Your task to perform on an android device: Search for "bose soundlink" on target, select the first entry, and add it to the cart. Image 0: 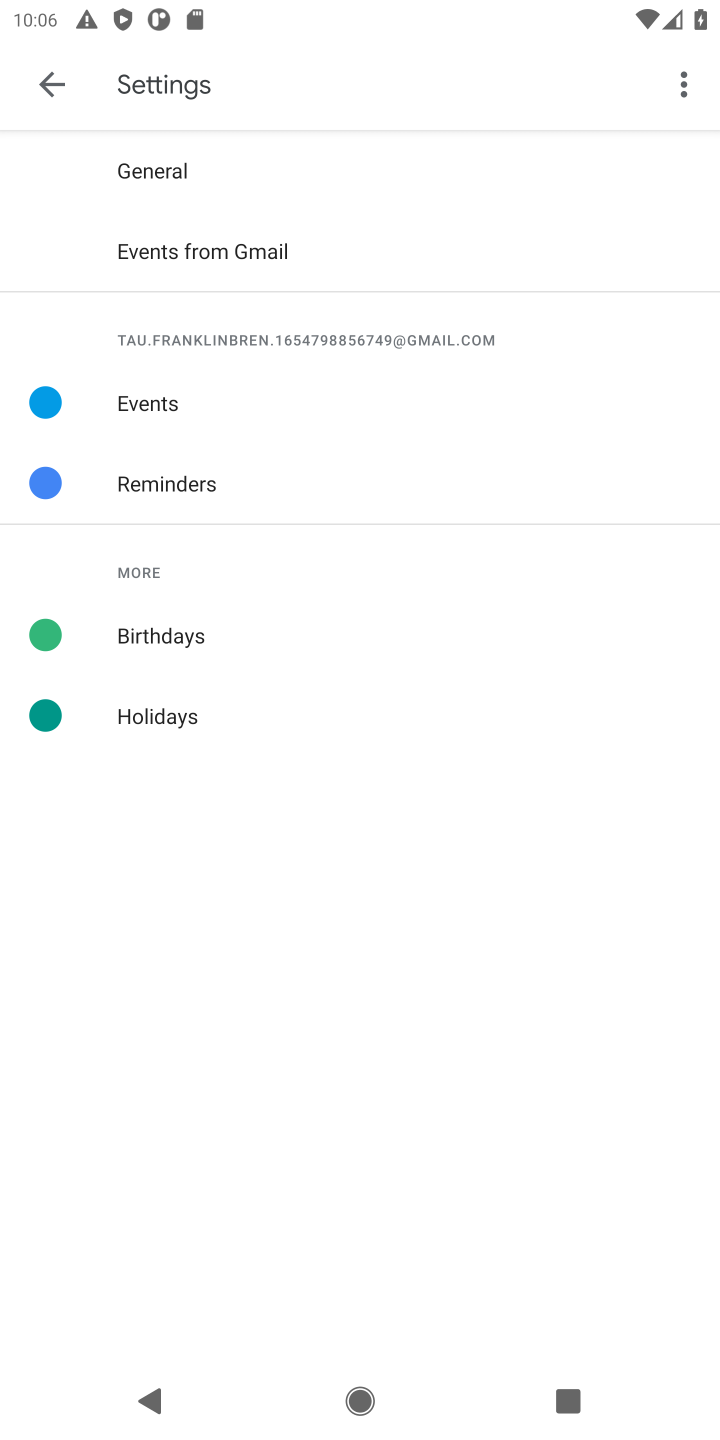
Step 0: press home button
Your task to perform on an android device: Search for "bose soundlink" on target, select the first entry, and add it to the cart. Image 1: 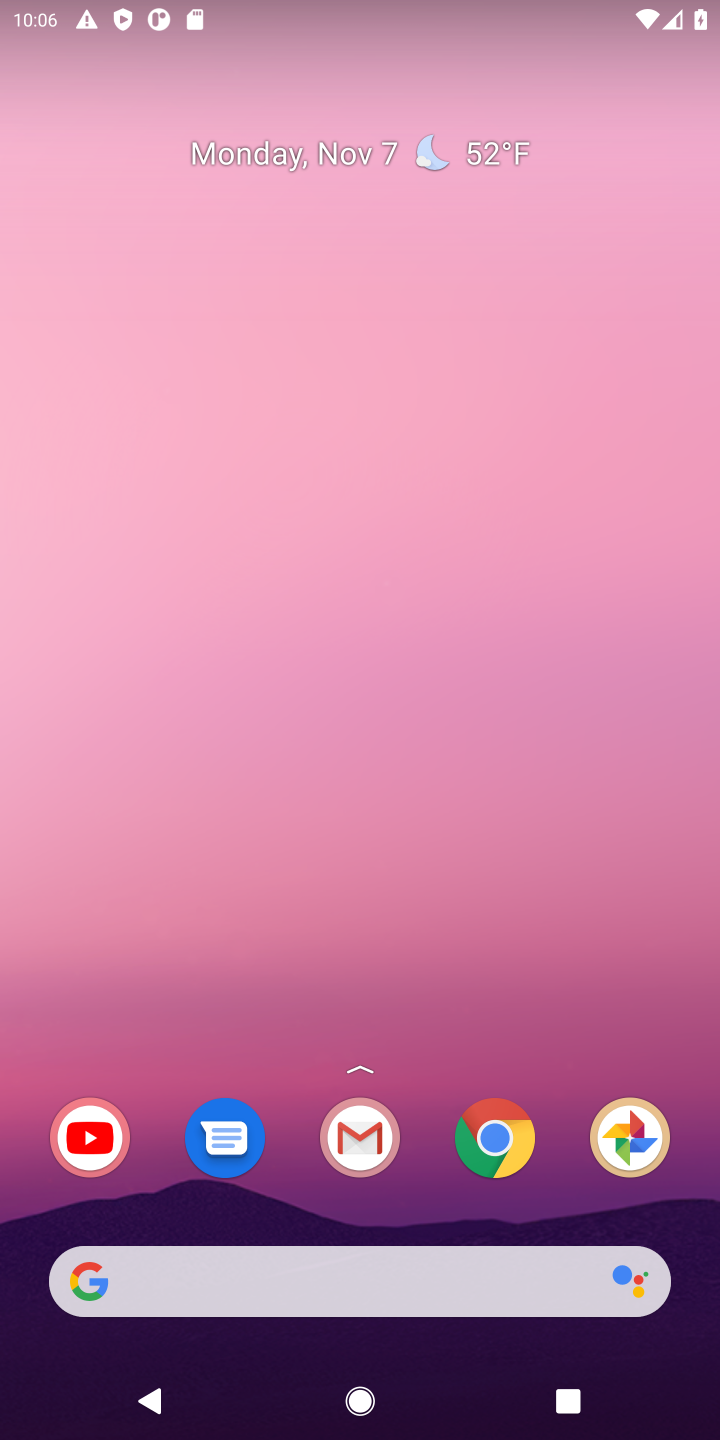
Step 1: click (489, 1158)
Your task to perform on an android device: Search for "bose soundlink" on target, select the first entry, and add it to the cart. Image 2: 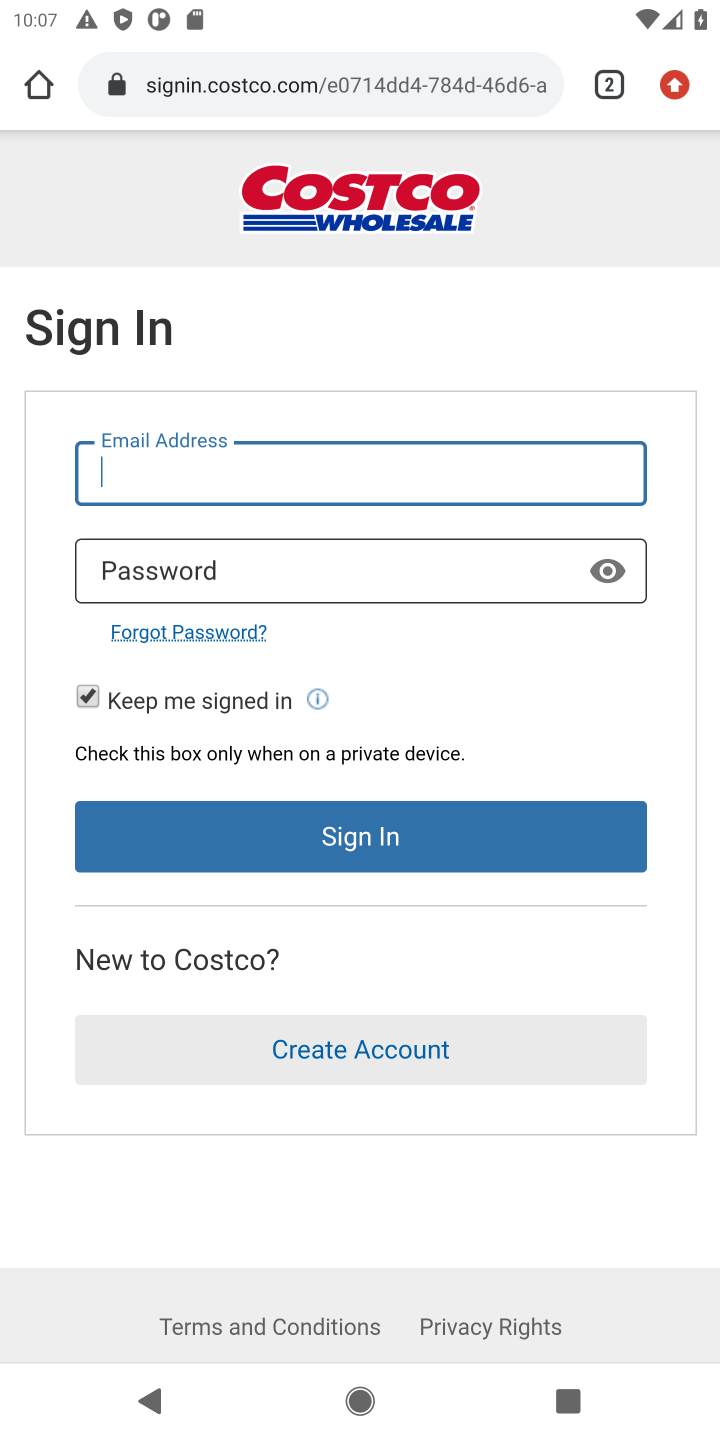
Step 2: click (208, 84)
Your task to perform on an android device: Search for "bose soundlink" on target, select the first entry, and add it to the cart. Image 3: 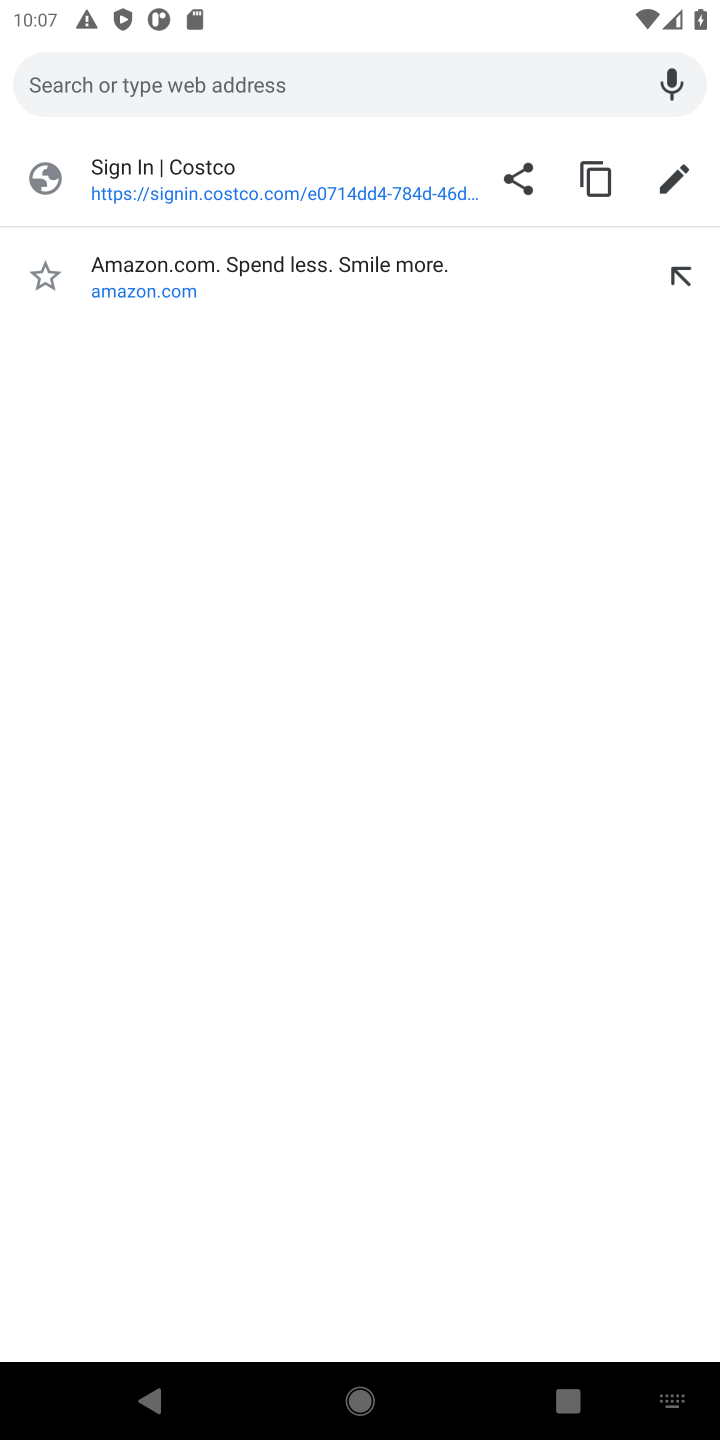
Step 3: type "target"
Your task to perform on an android device: Search for "bose soundlink" on target, select the first entry, and add it to the cart. Image 4: 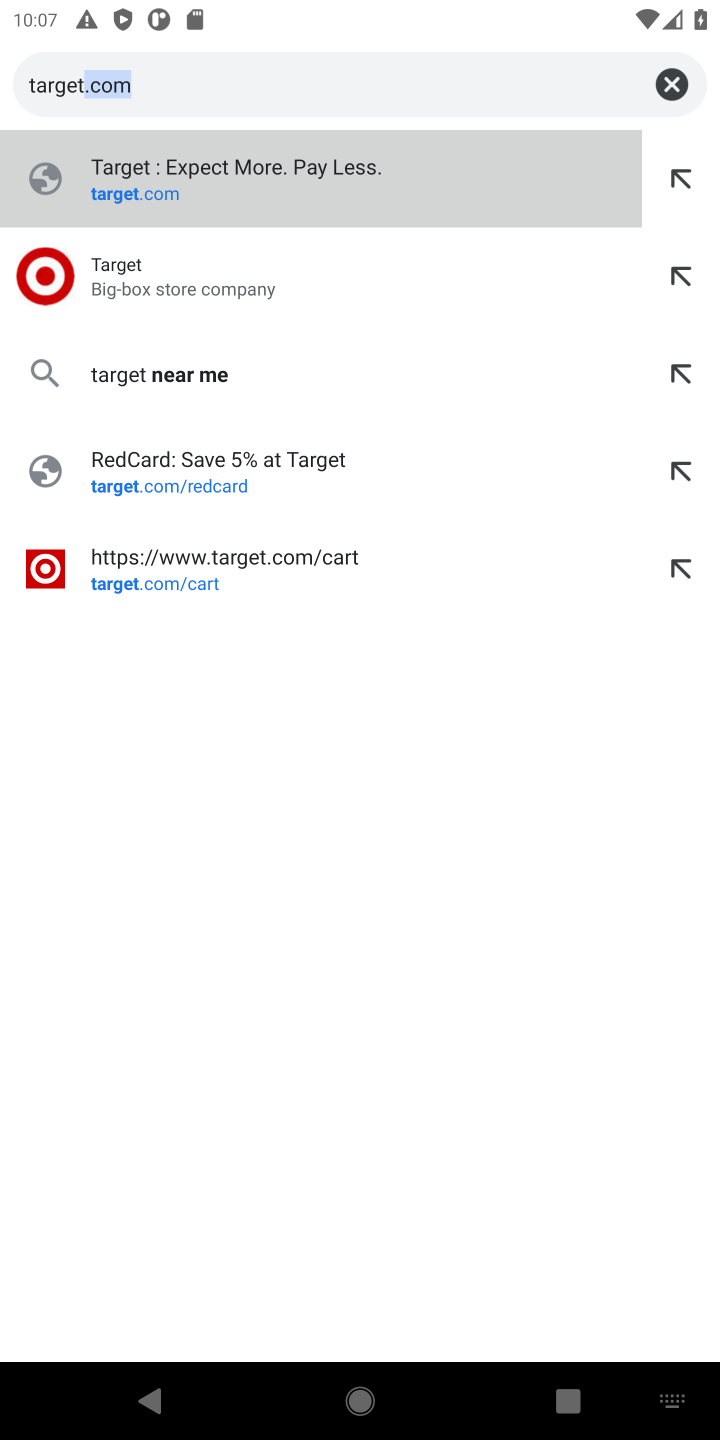
Step 4: click (167, 271)
Your task to perform on an android device: Search for "bose soundlink" on target, select the first entry, and add it to the cart. Image 5: 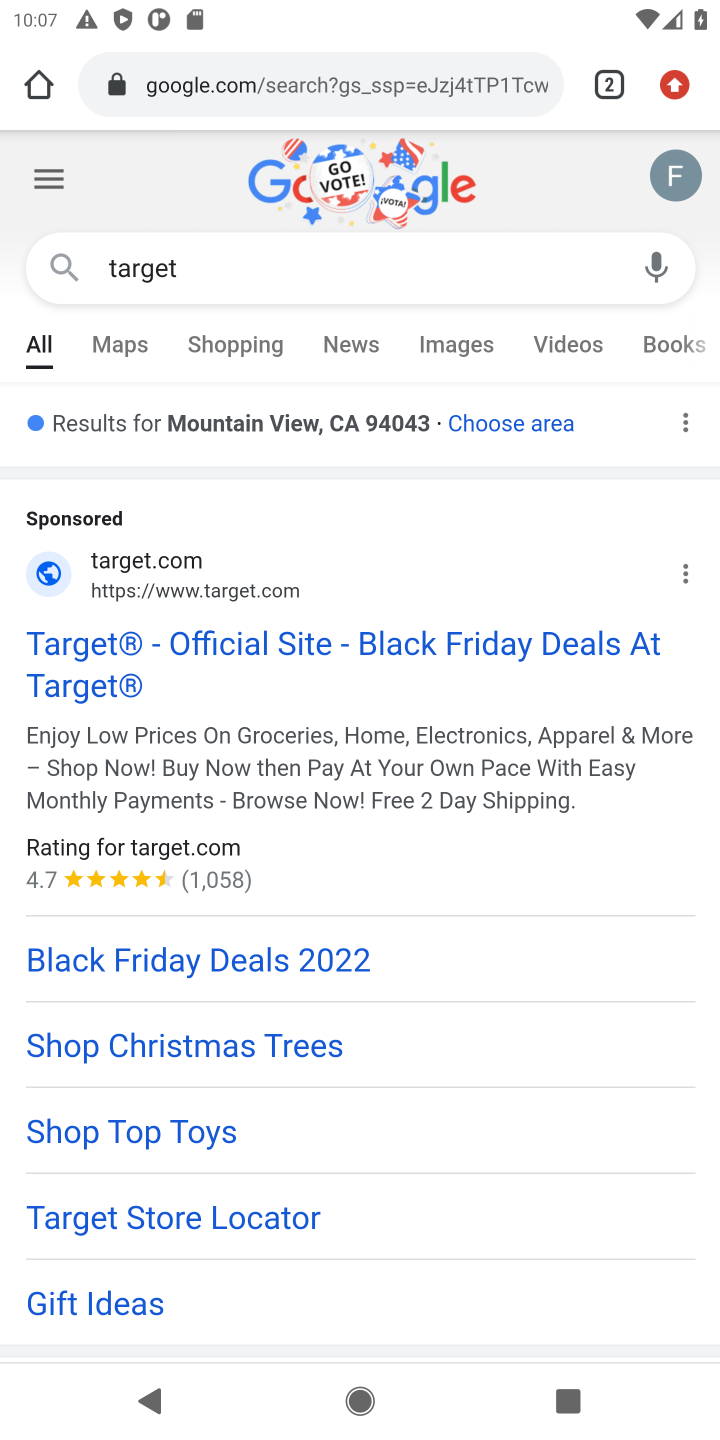
Step 5: drag from (249, 1114) to (439, 214)
Your task to perform on an android device: Search for "bose soundlink" on target, select the first entry, and add it to the cart. Image 6: 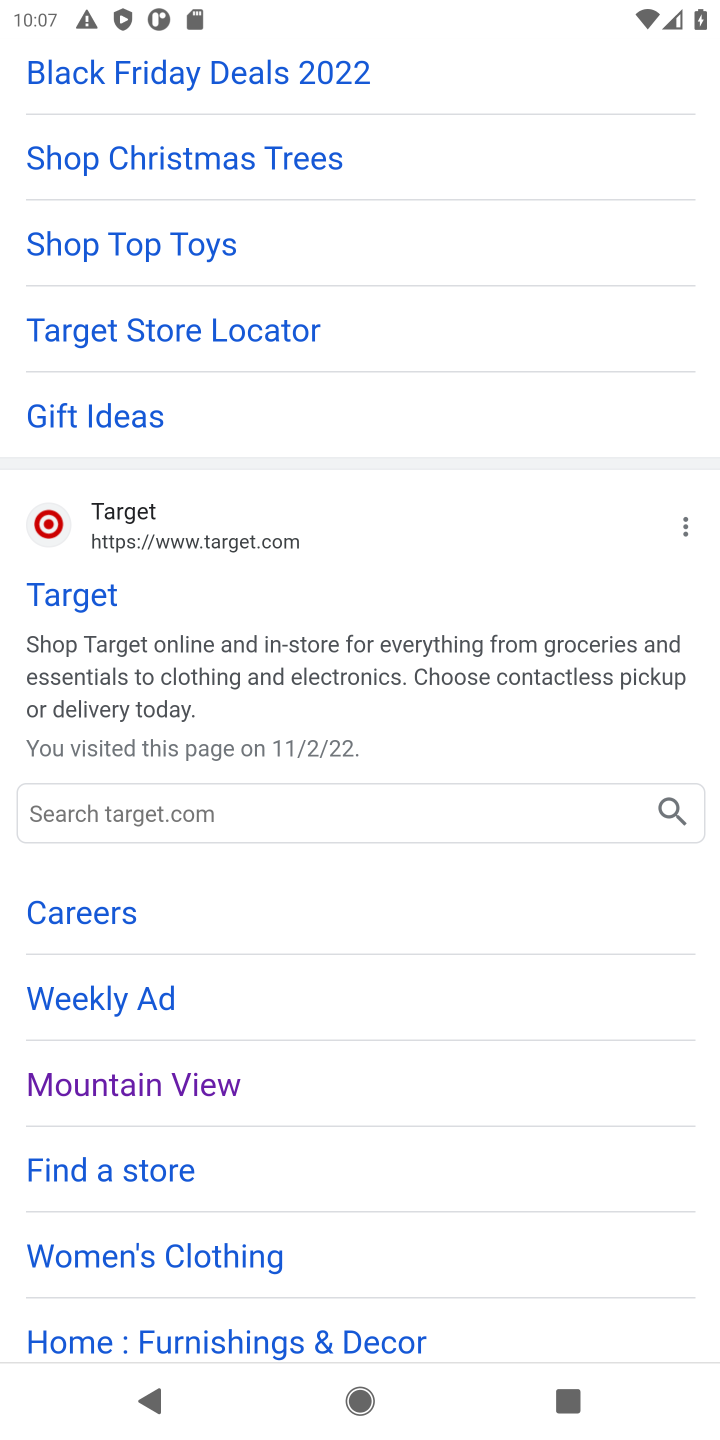
Step 6: click (92, 593)
Your task to perform on an android device: Search for "bose soundlink" on target, select the first entry, and add it to the cart. Image 7: 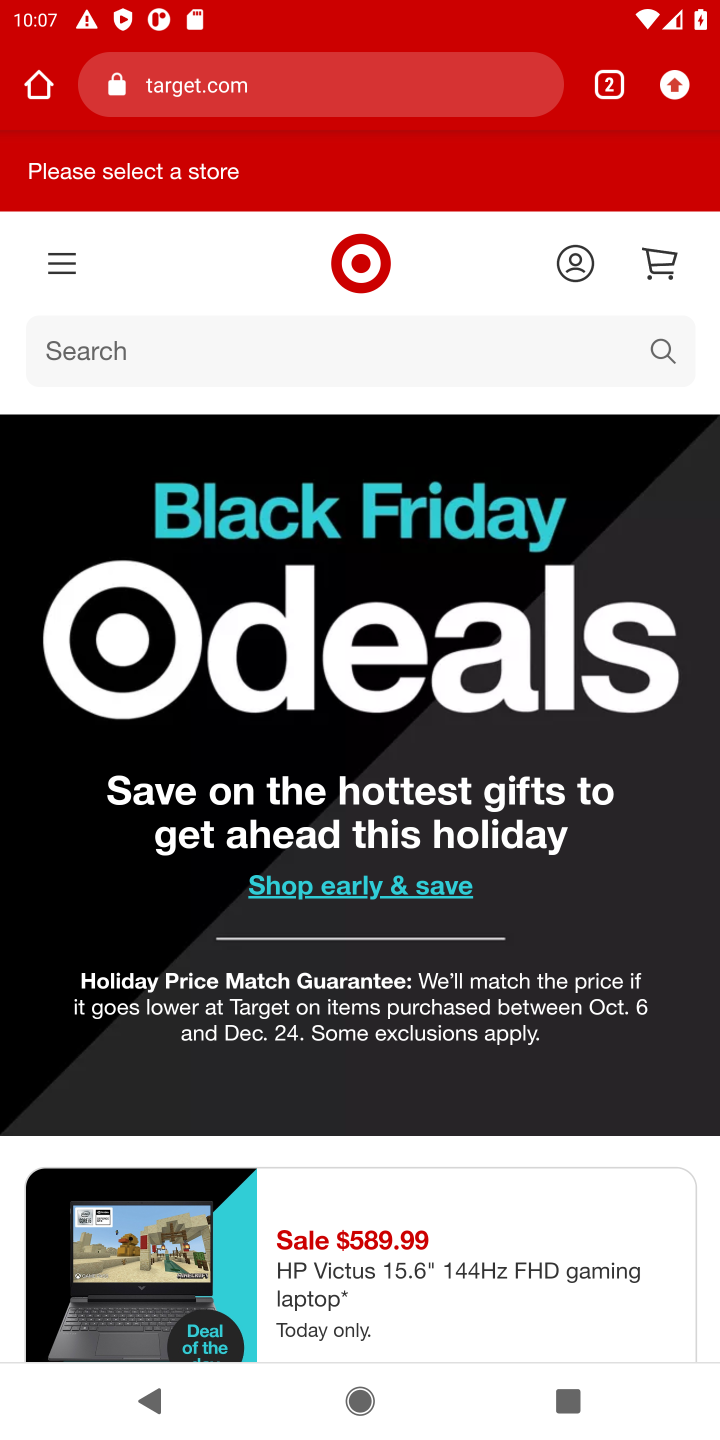
Step 7: click (662, 358)
Your task to perform on an android device: Search for "bose soundlink" on target, select the first entry, and add it to the cart. Image 8: 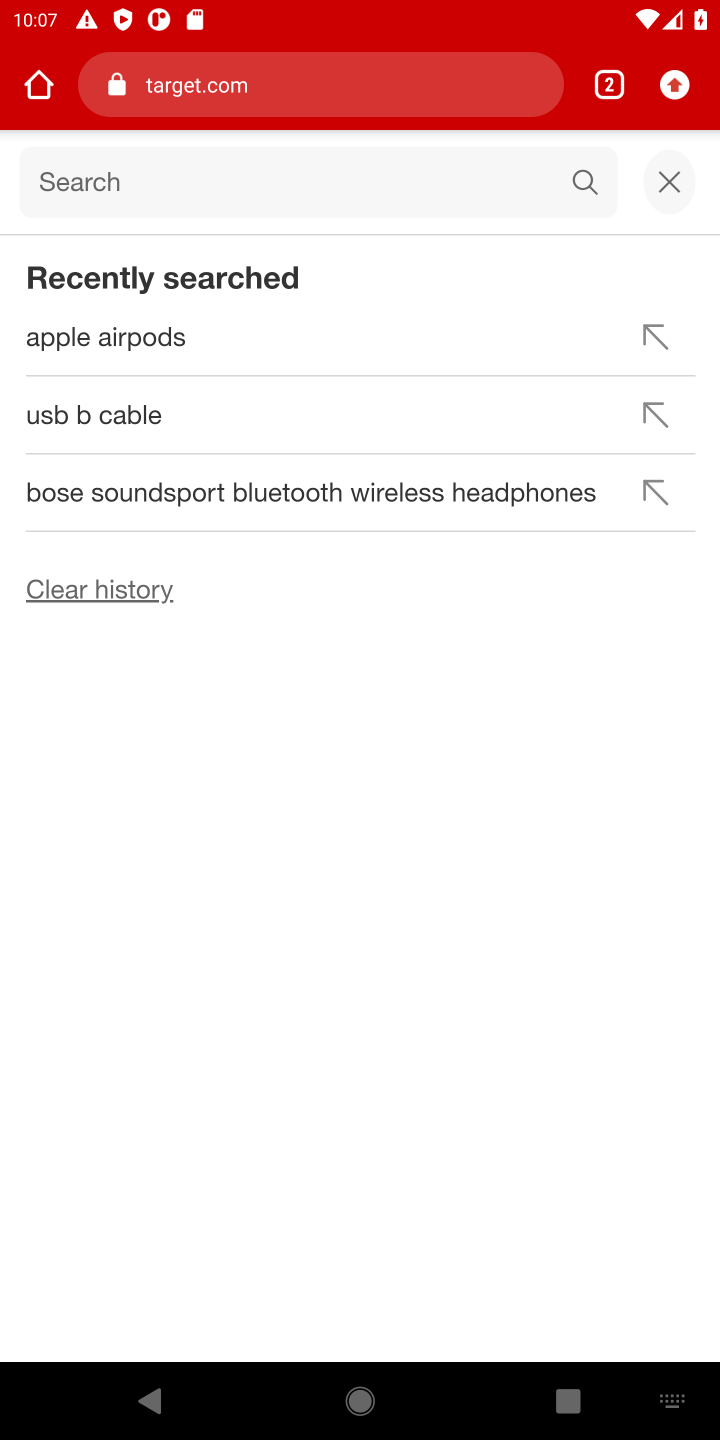
Step 8: type "bose soundlink"
Your task to perform on an android device: Search for "bose soundlink" on target, select the first entry, and add it to the cart. Image 9: 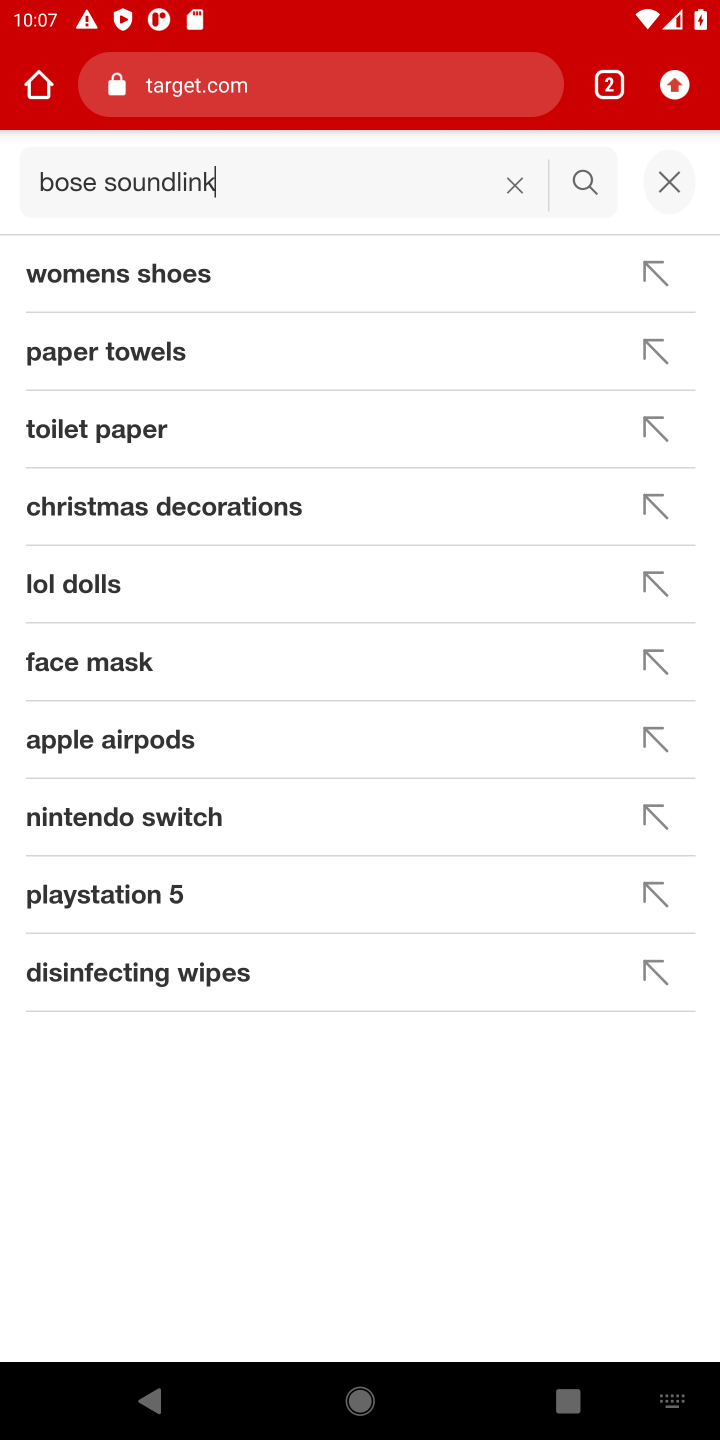
Step 9: type ""
Your task to perform on an android device: Search for "bose soundlink" on target, select the first entry, and add it to the cart. Image 10: 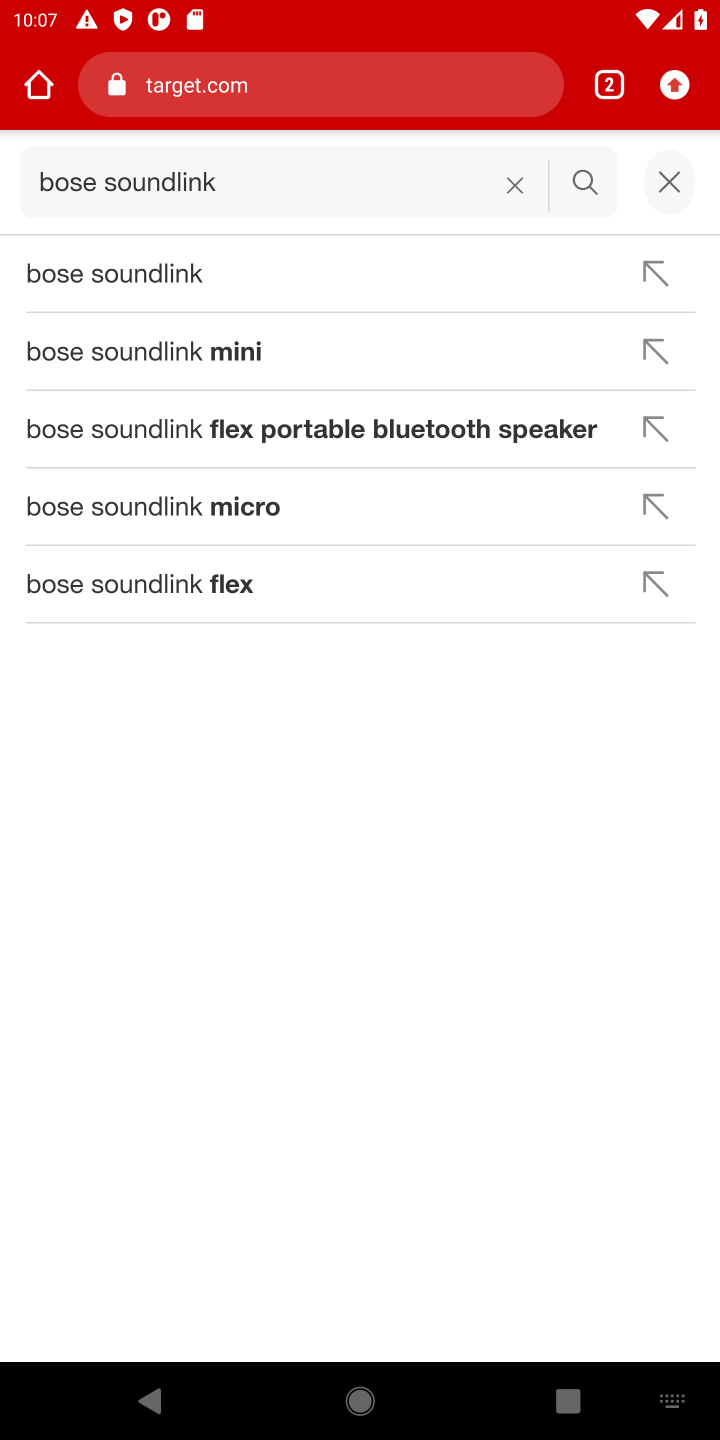
Step 10: click (149, 288)
Your task to perform on an android device: Search for "bose soundlink" on target, select the first entry, and add it to the cart. Image 11: 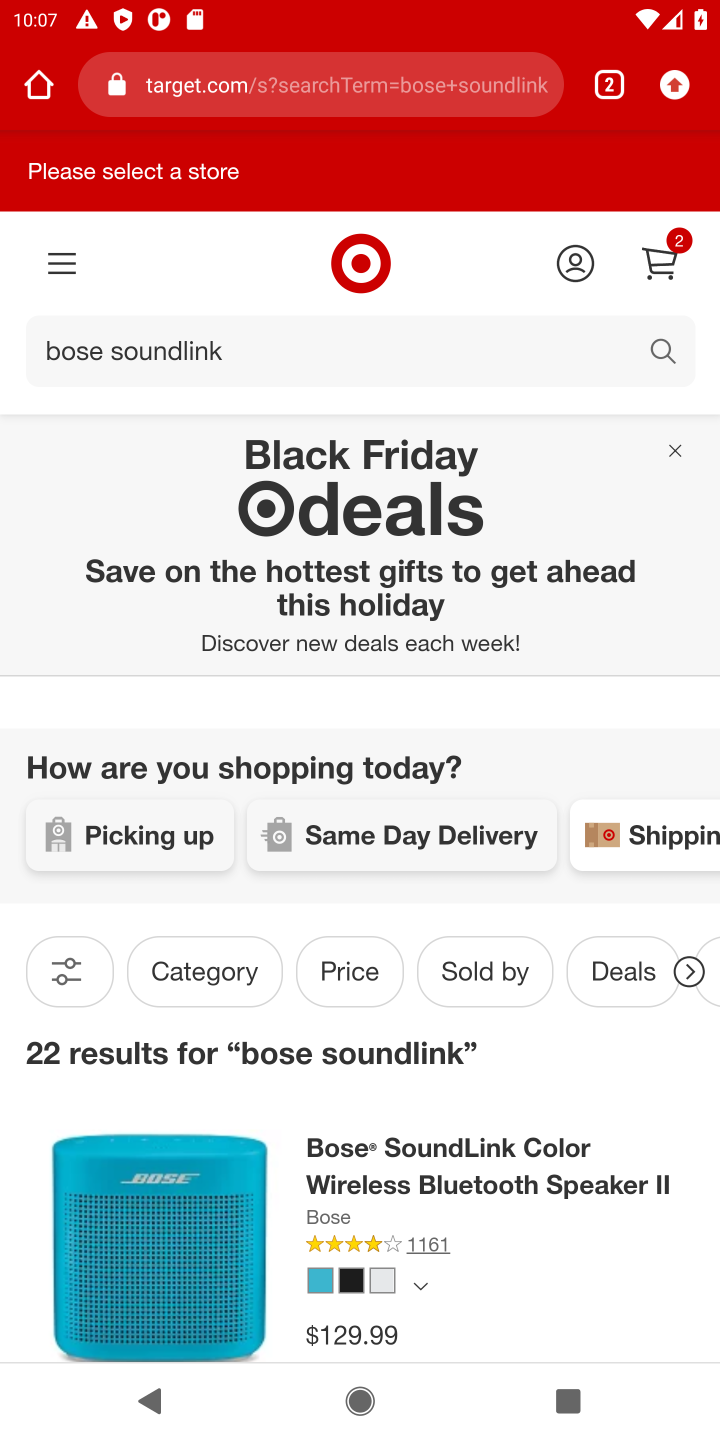
Step 11: drag from (342, 991) to (361, 320)
Your task to perform on an android device: Search for "bose soundlink" on target, select the first entry, and add it to the cart. Image 12: 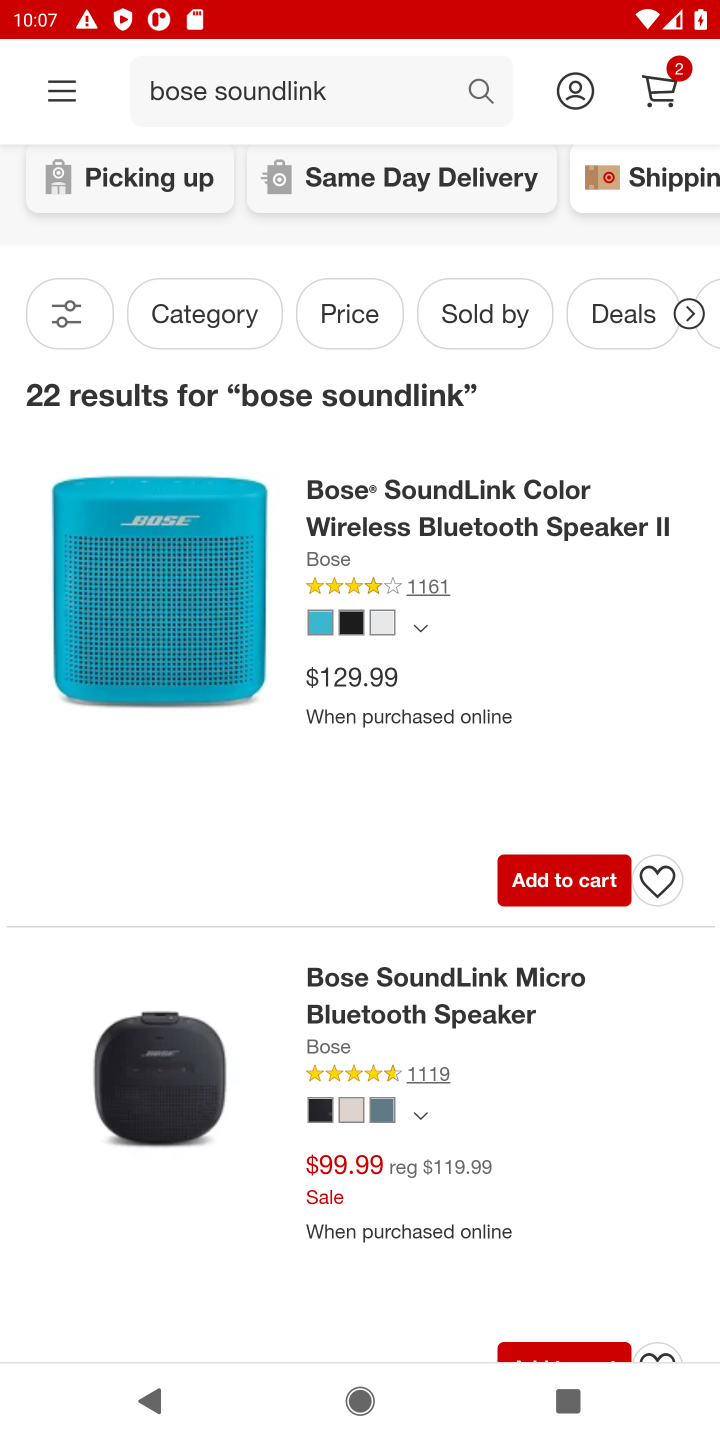
Step 12: click (140, 580)
Your task to perform on an android device: Search for "bose soundlink" on target, select the first entry, and add it to the cart. Image 13: 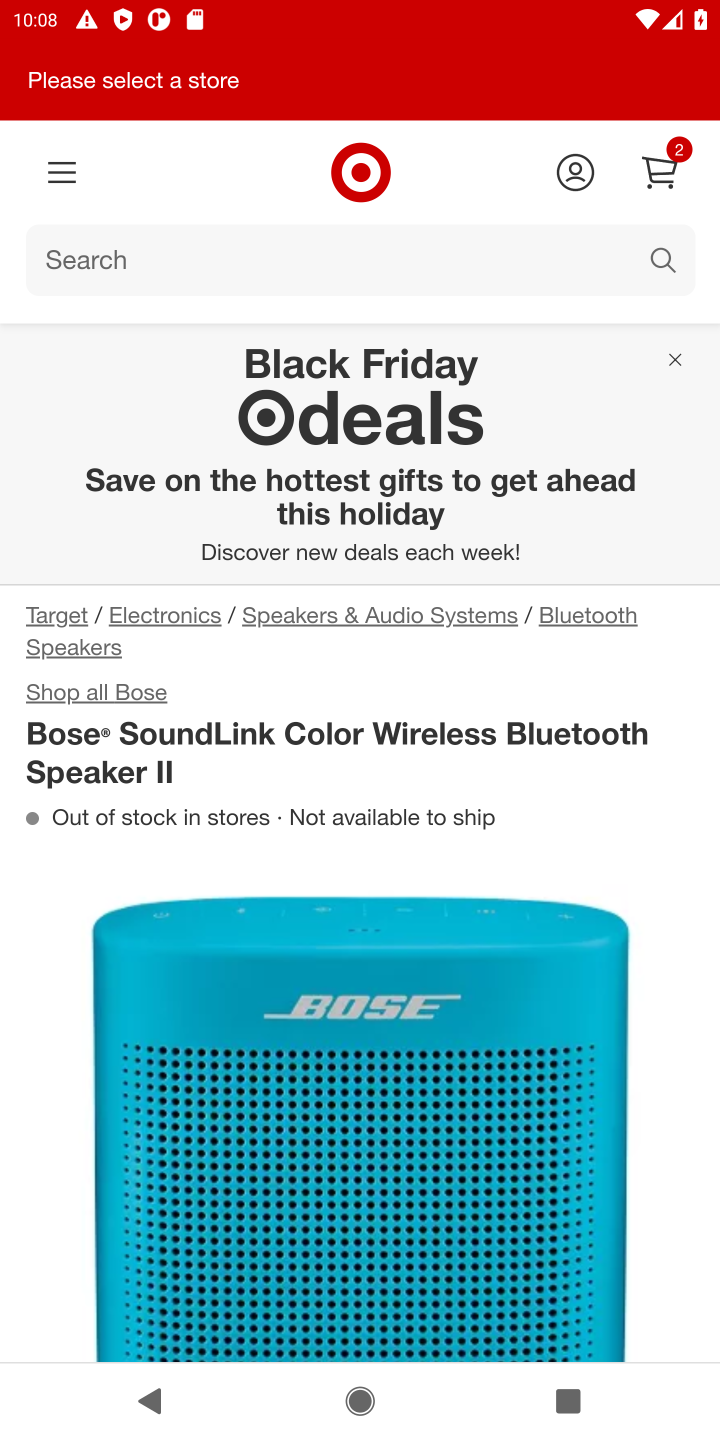
Step 13: drag from (461, 972) to (475, 186)
Your task to perform on an android device: Search for "bose soundlink" on target, select the first entry, and add it to the cart. Image 14: 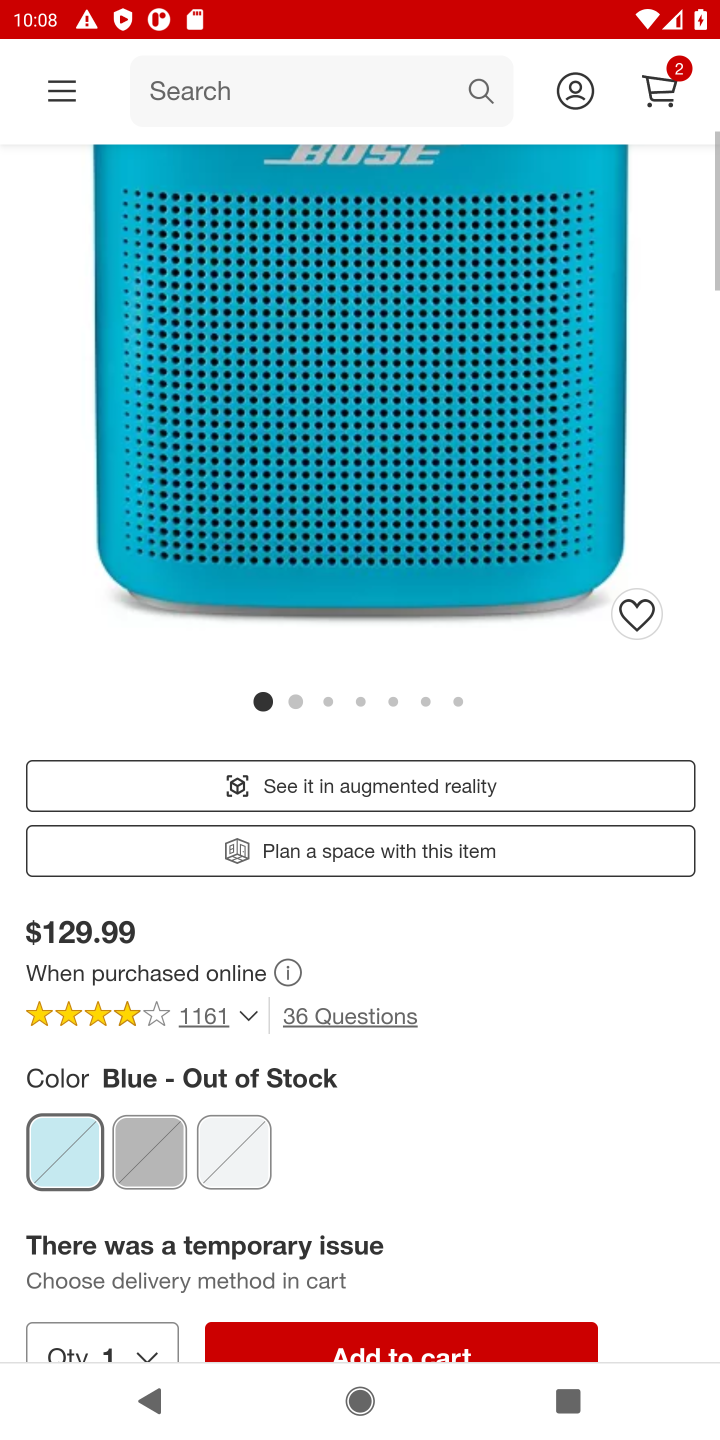
Step 14: drag from (425, 687) to (490, 58)
Your task to perform on an android device: Search for "bose soundlink" on target, select the first entry, and add it to the cart. Image 15: 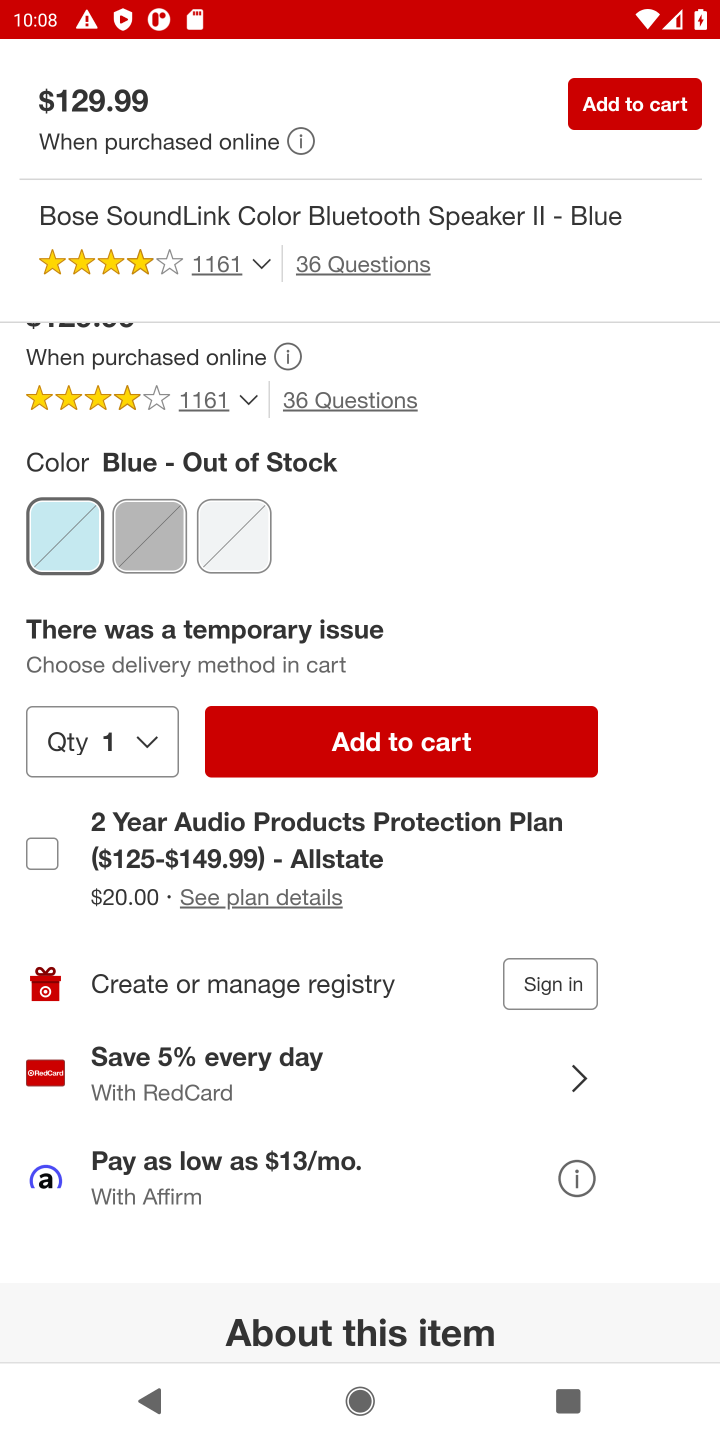
Step 15: click (395, 745)
Your task to perform on an android device: Search for "bose soundlink" on target, select the first entry, and add it to the cart. Image 16: 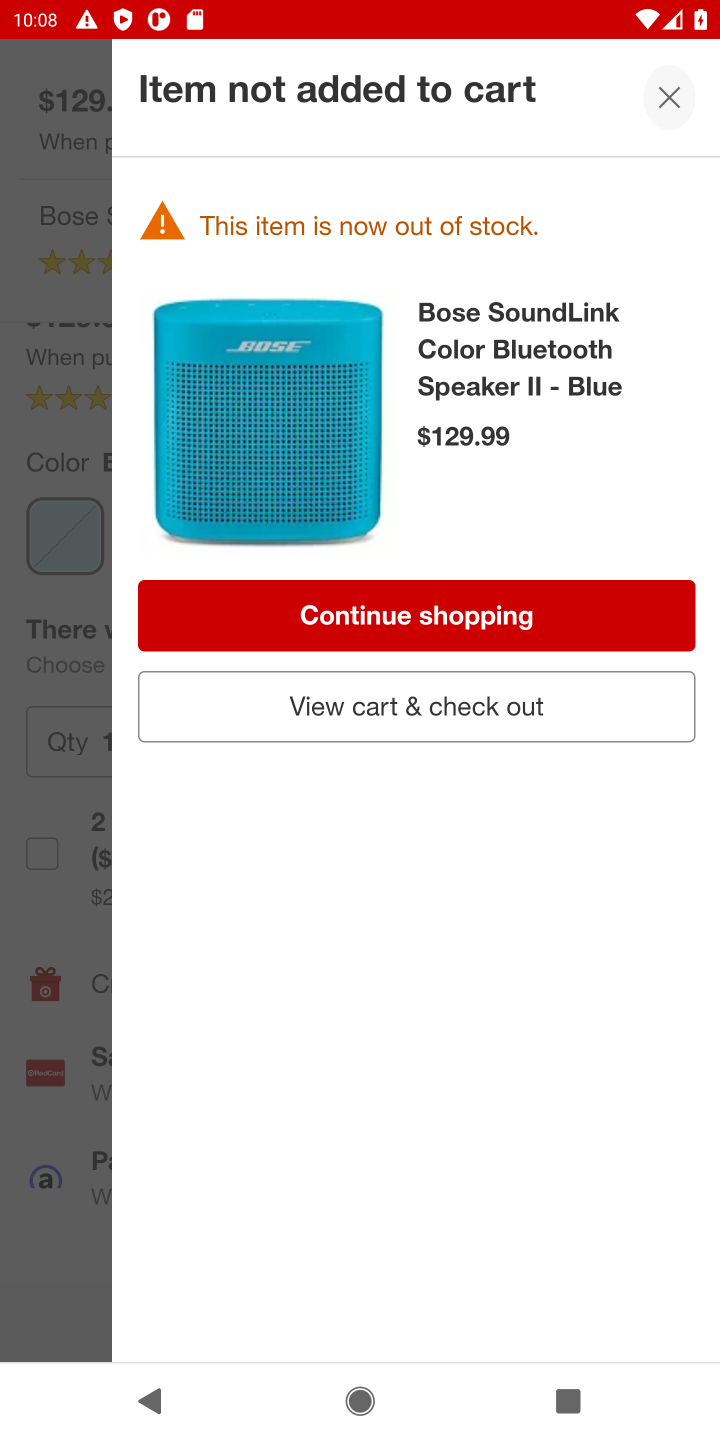
Step 16: click (666, 94)
Your task to perform on an android device: Search for "bose soundlink" on target, select the first entry, and add it to the cart. Image 17: 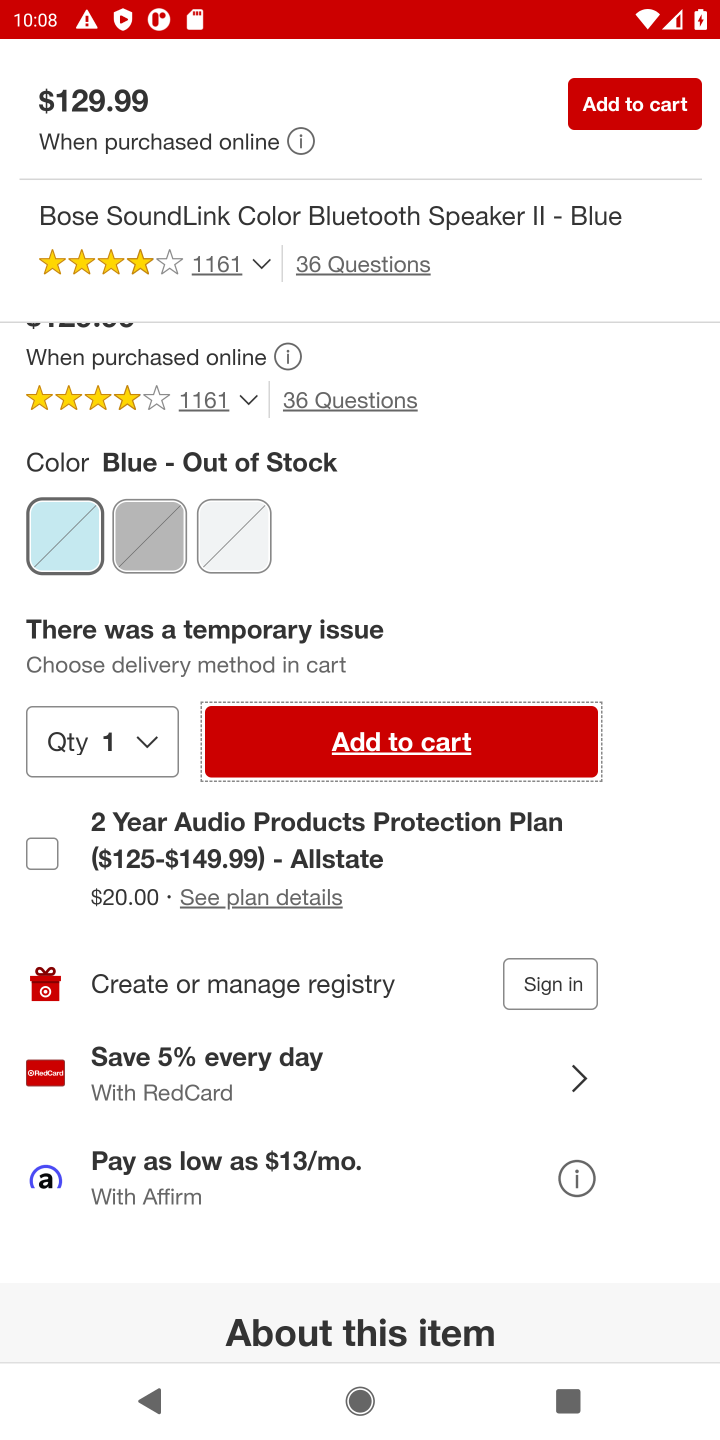
Step 17: drag from (424, 1247) to (447, 868)
Your task to perform on an android device: Search for "bose soundlink" on target, select the first entry, and add it to the cart. Image 18: 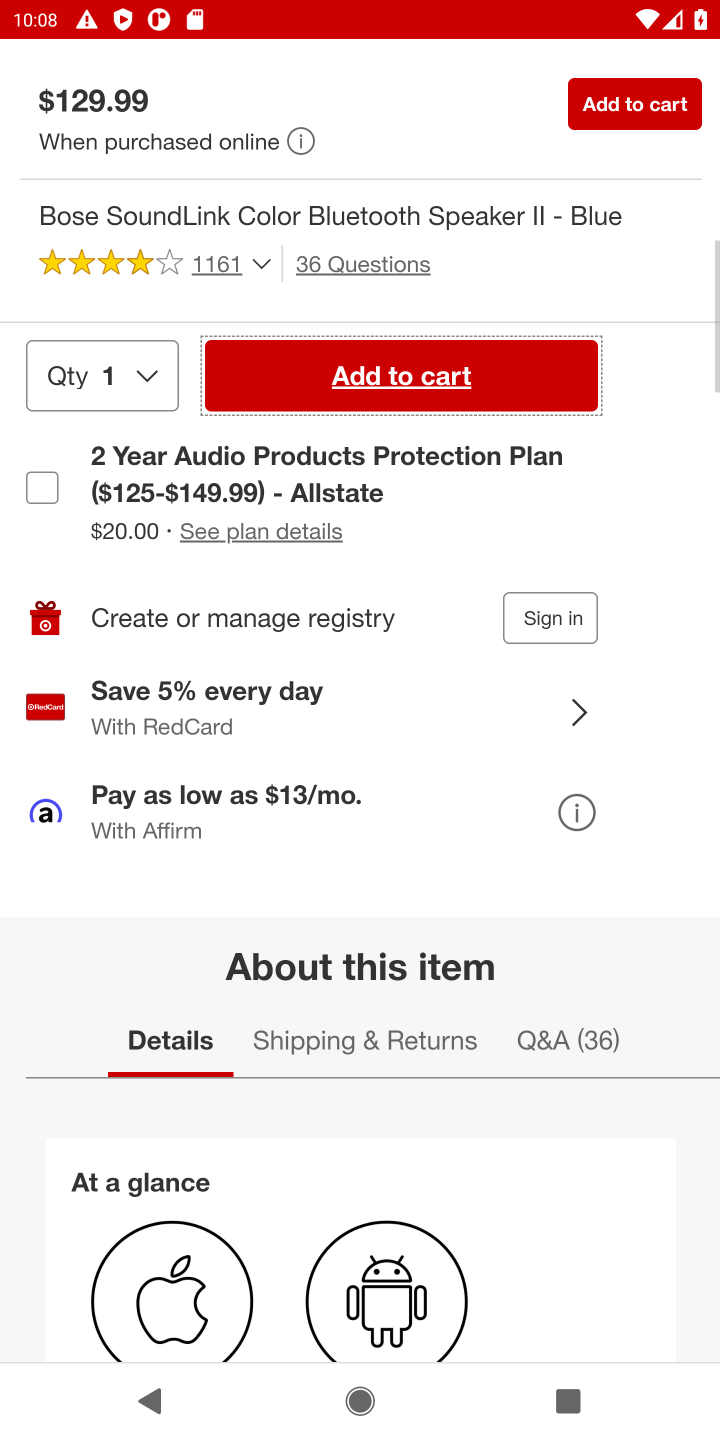
Step 18: press back button
Your task to perform on an android device: Search for "bose soundlink" on target, select the first entry, and add it to the cart. Image 19: 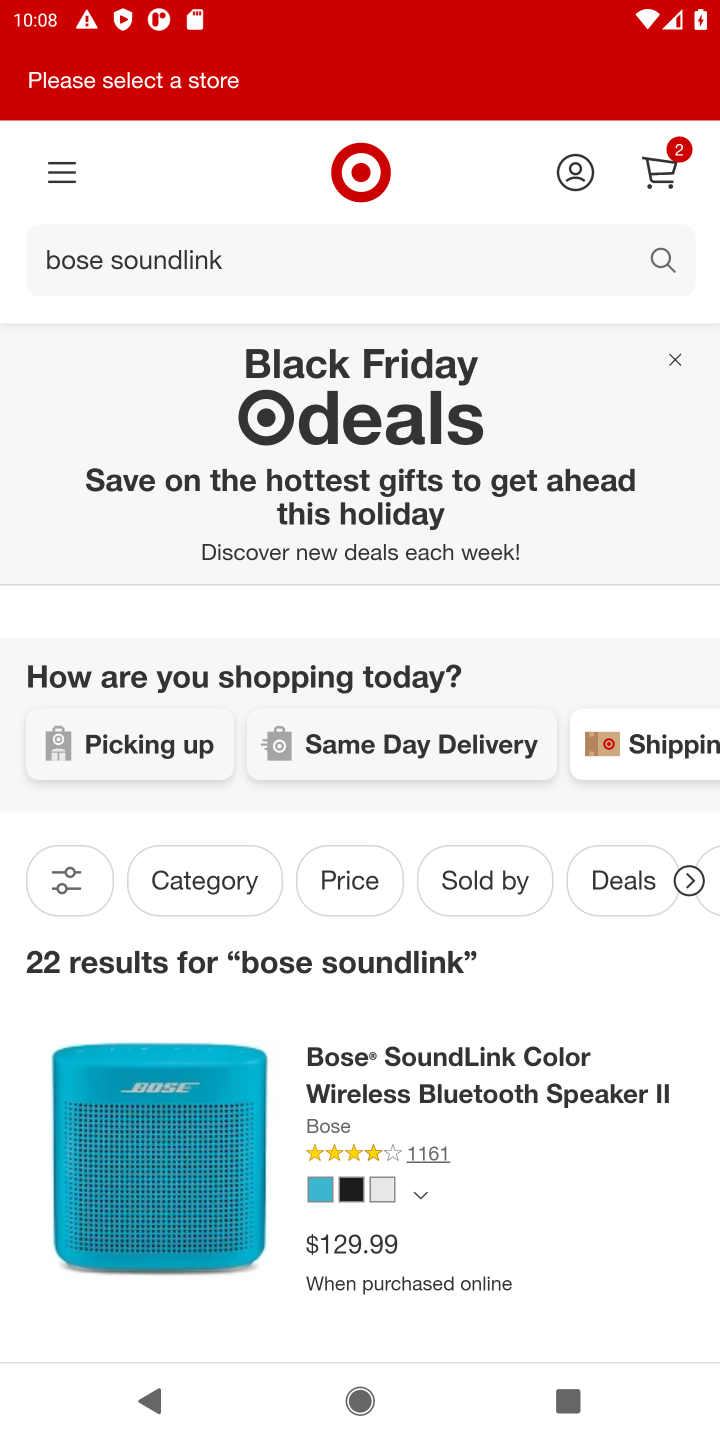
Step 19: drag from (411, 970) to (416, 463)
Your task to perform on an android device: Search for "bose soundlink" on target, select the first entry, and add it to the cart. Image 20: 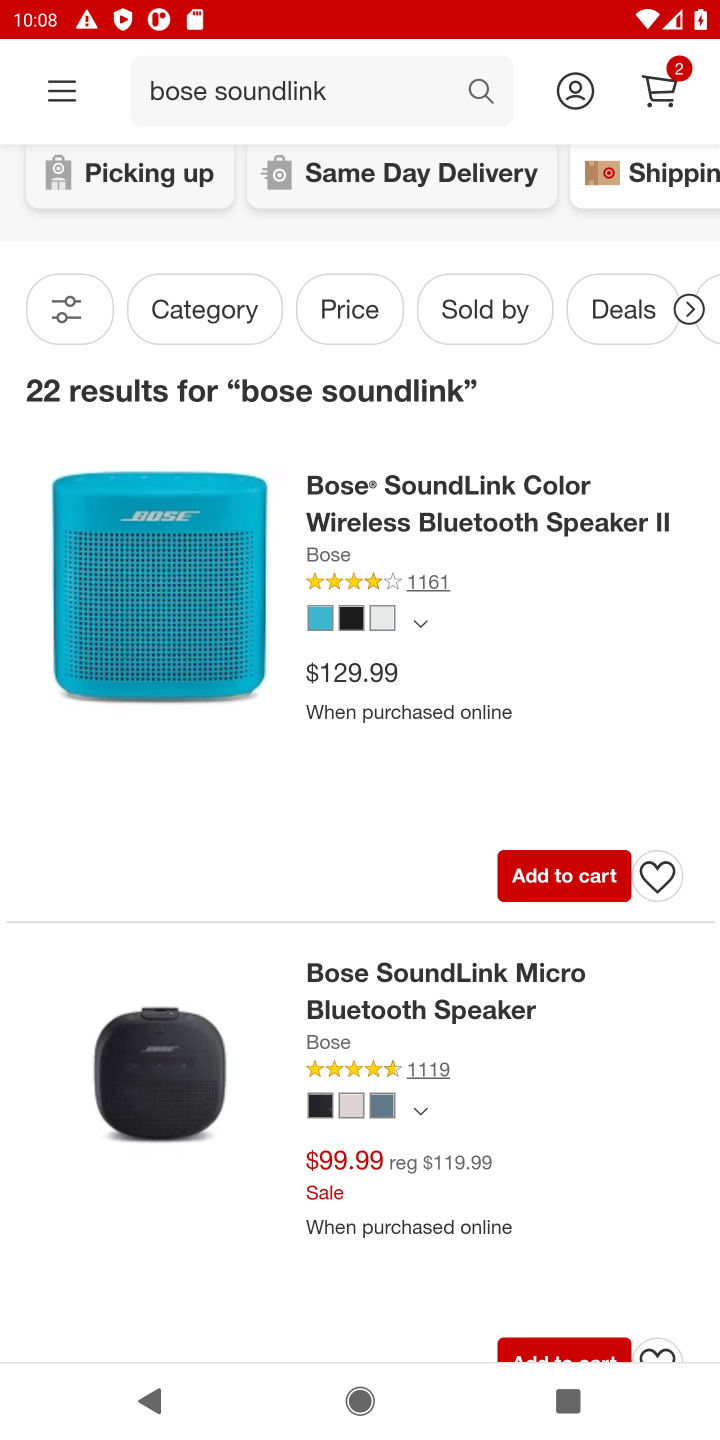
Step 20: drag from (414, 1177) to (535, 458)
Your task to perform on an android device: Search for "bose soundlink" on target, select the first entry, and add it to the cart. Image 21: 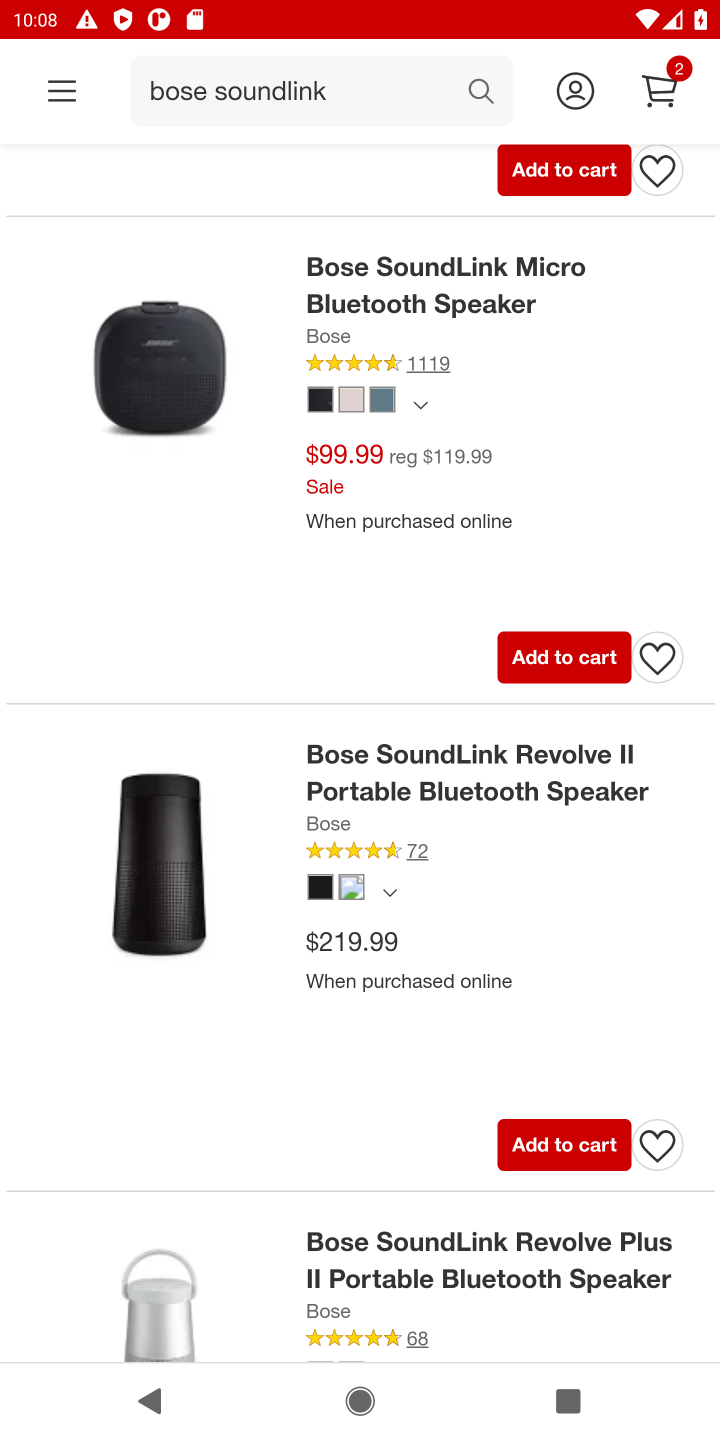
Step 21: click (480, 1273)
Your task to perform on an android device: Search for "bose soundlink" on target, select the first entry, and add it to the cart. Image 22: 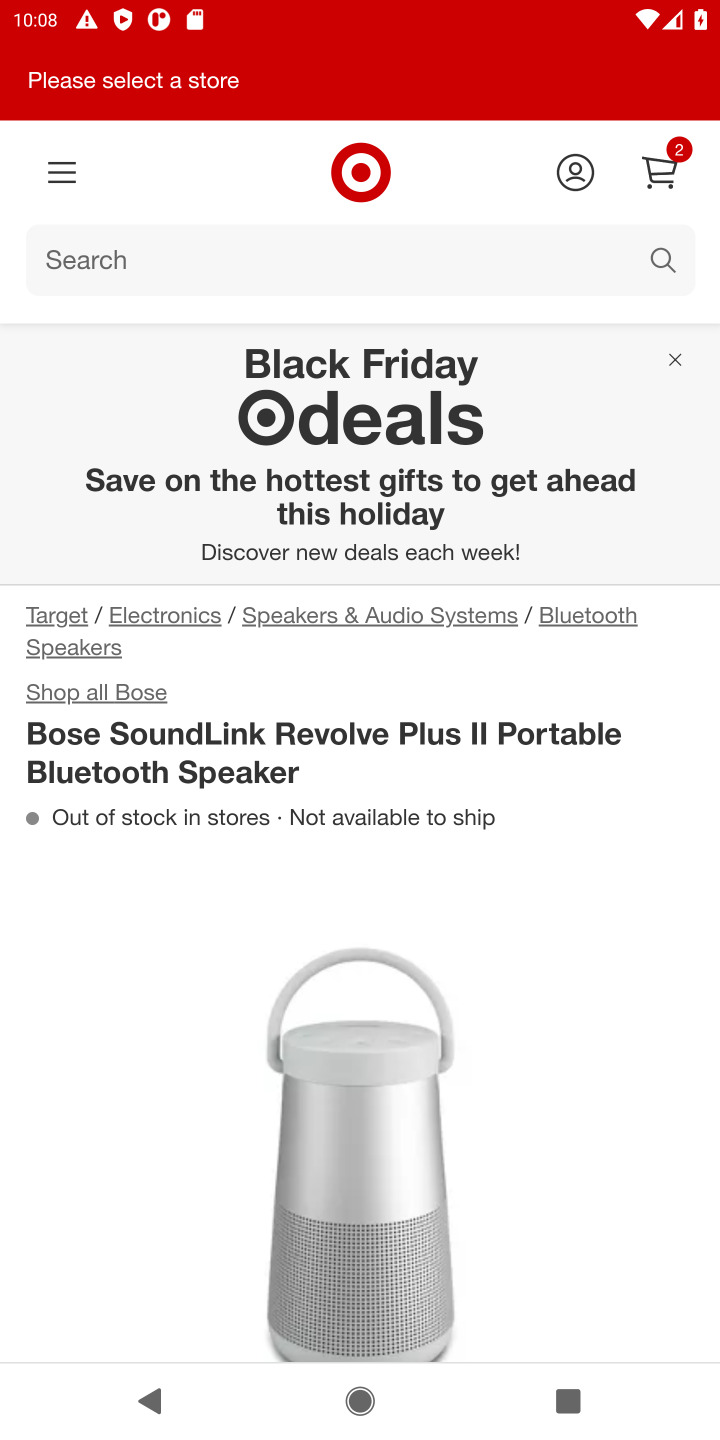
Step 22: drag from (376, 1152) to (269, 426)
Your task to perform on an android device: Search for "bose soundlink" on target, select the first entry, and add it to the cart. Image 23: 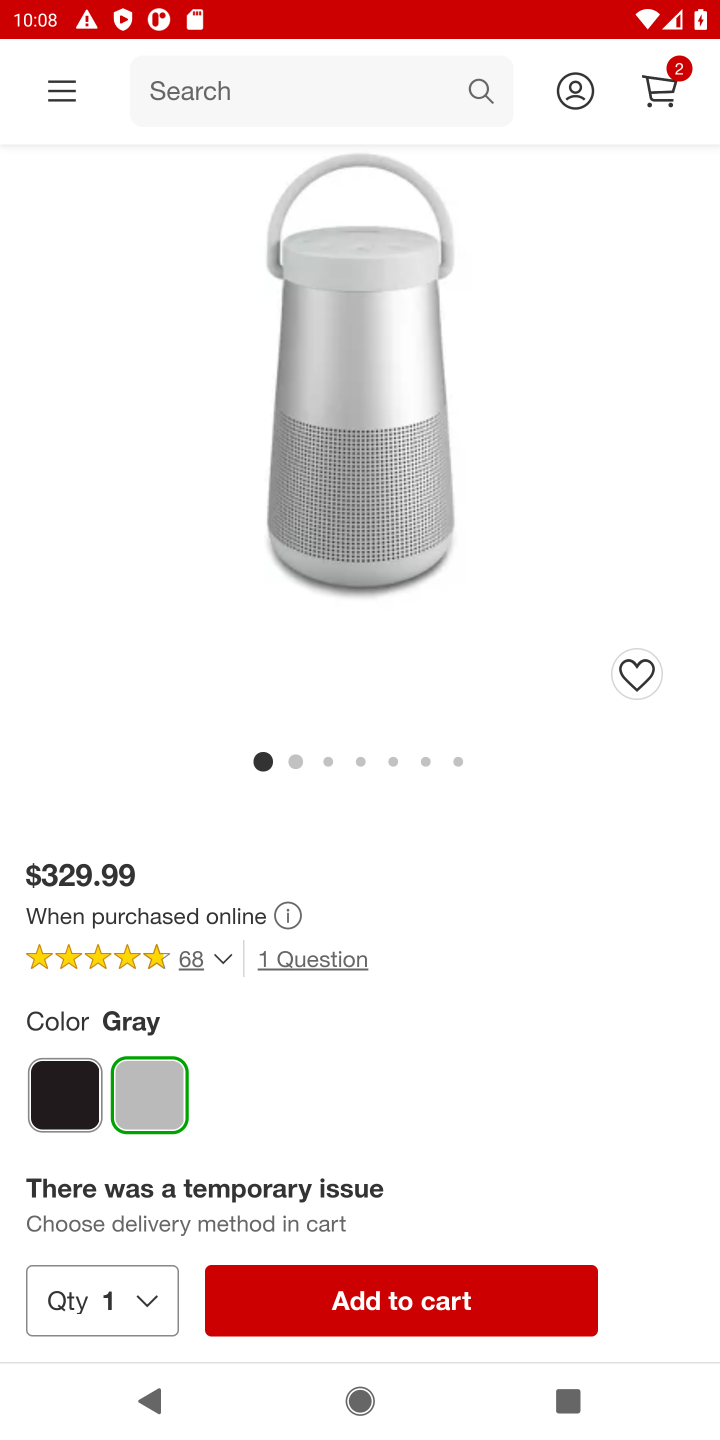
Step 23: drag from (413, 1039) to (367, 732)
Your task to perform on an android device: Search for "bose soundlink" on target, select the first entry, and add it to the cart. Image 24: 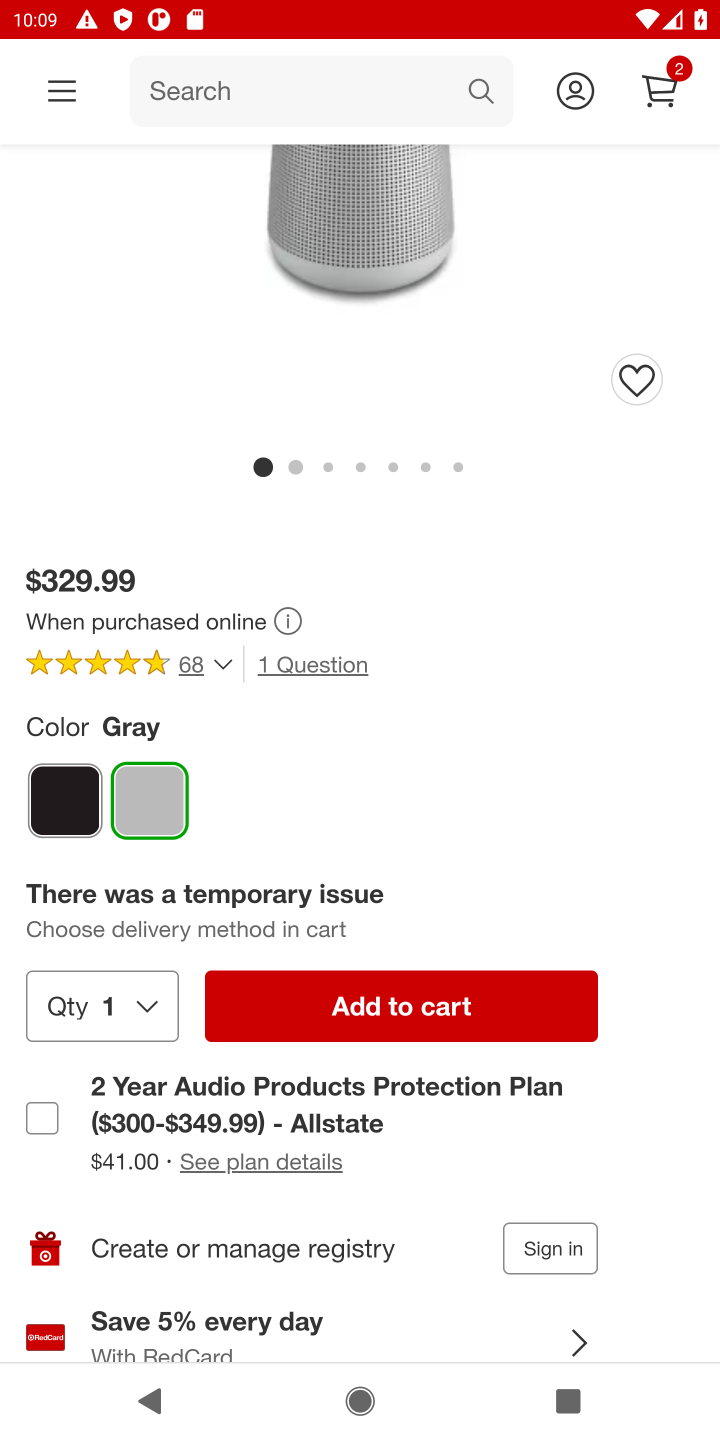
Step 24: click (411, 1007)
Your task to perform on an android device: Search for "bose soundlink" on target, select the first entry, and add it to the cart. Image 25: 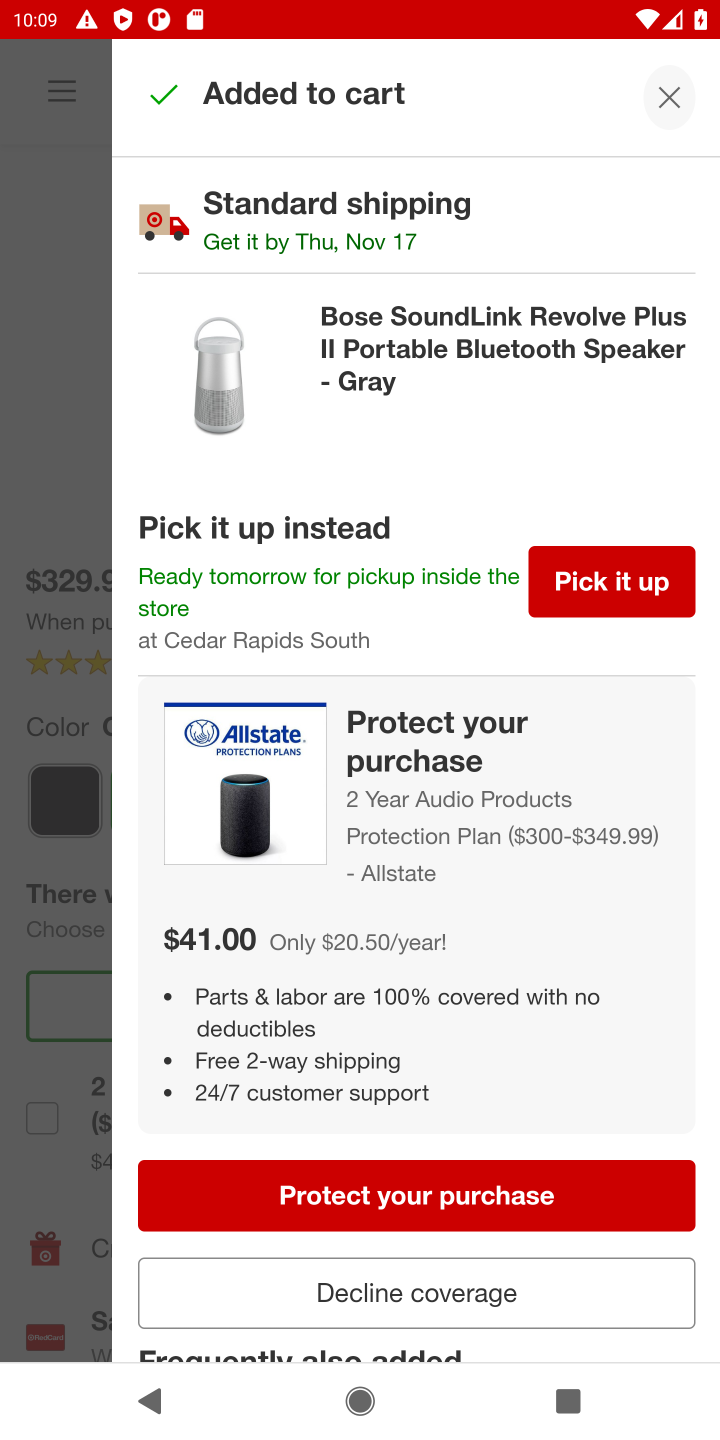
Step 25: click (487, 1202)
Your task to perform on an android device: Search for "bose soundlink" on target, select the first entry, and add it to the cart. Image 26: 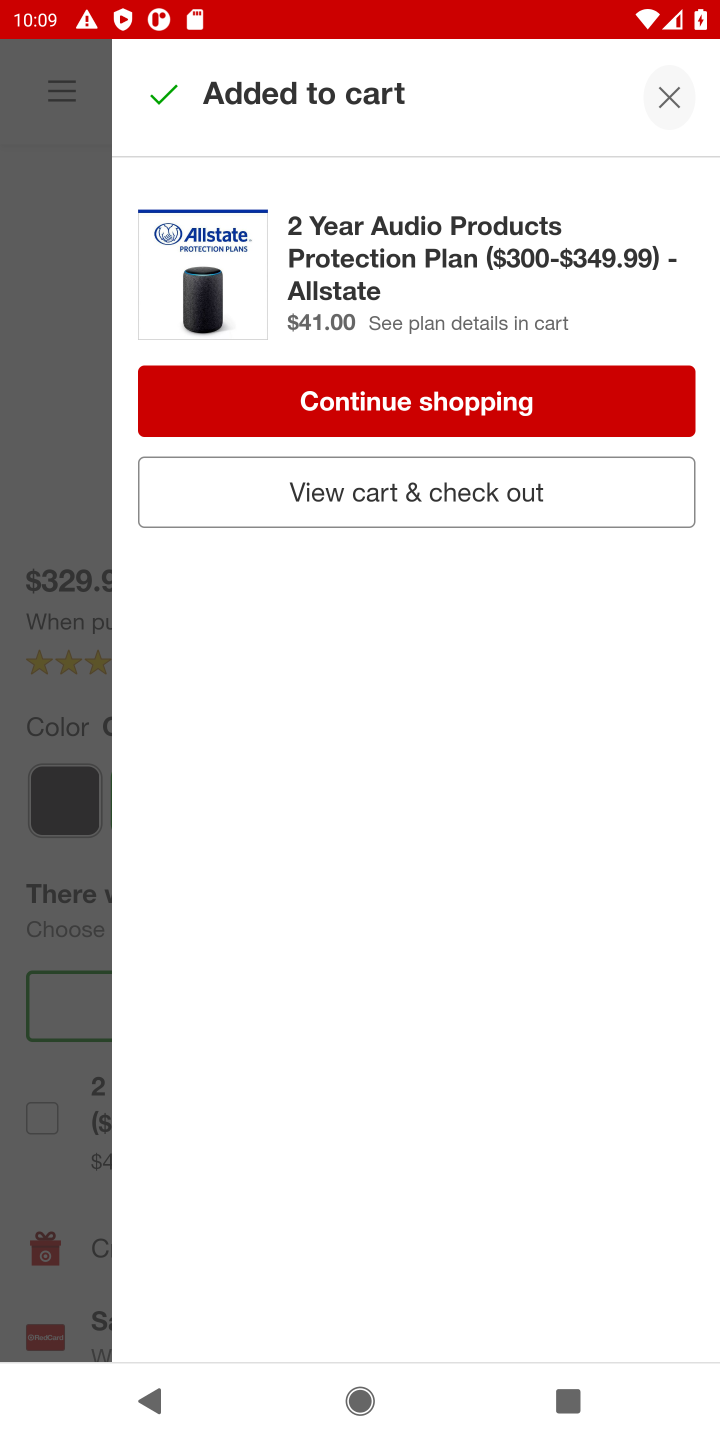
Step 26: click (382, 500)
Your task to perform on an android device: Search for "bose soundlink" on target, select the first entry, and add it to the cart. Image 27: 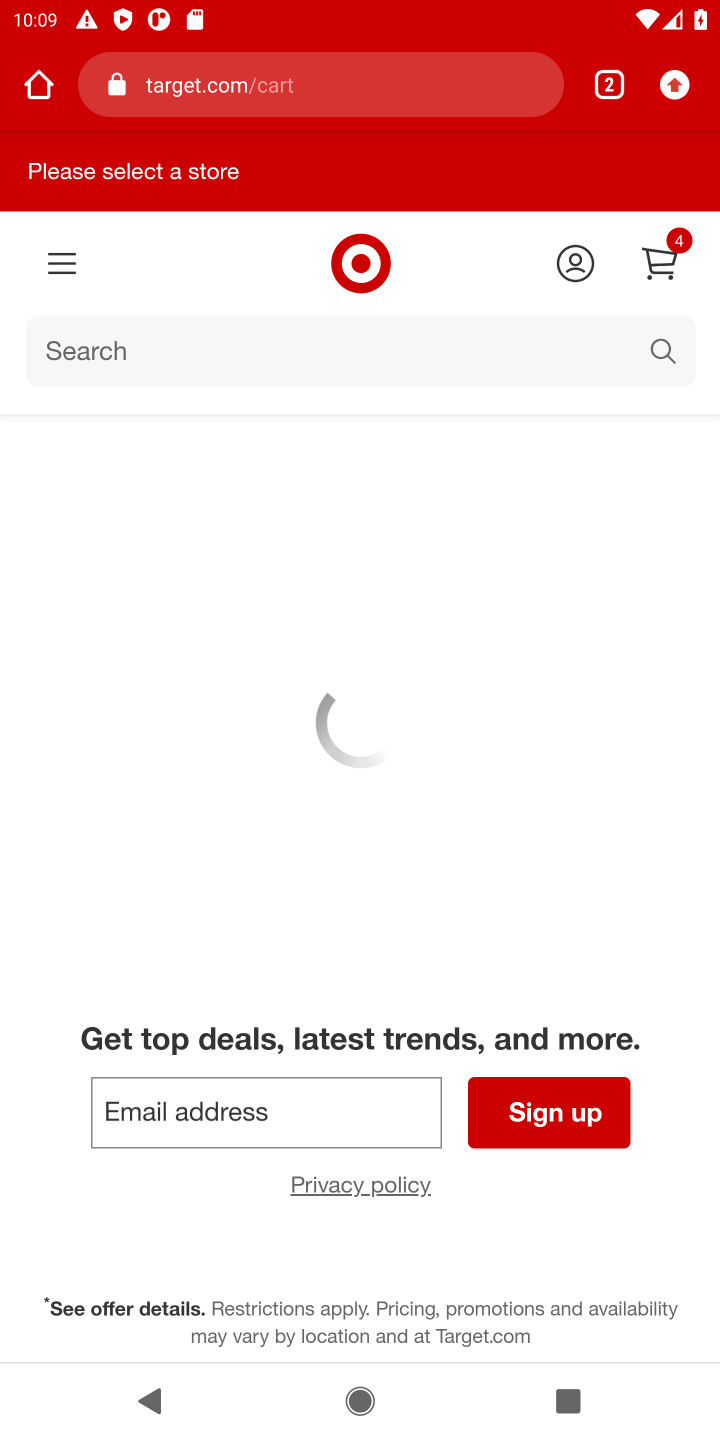
Step 27: task complete